Your task to perform on an android device: Go to Yahoo.com Image 0: 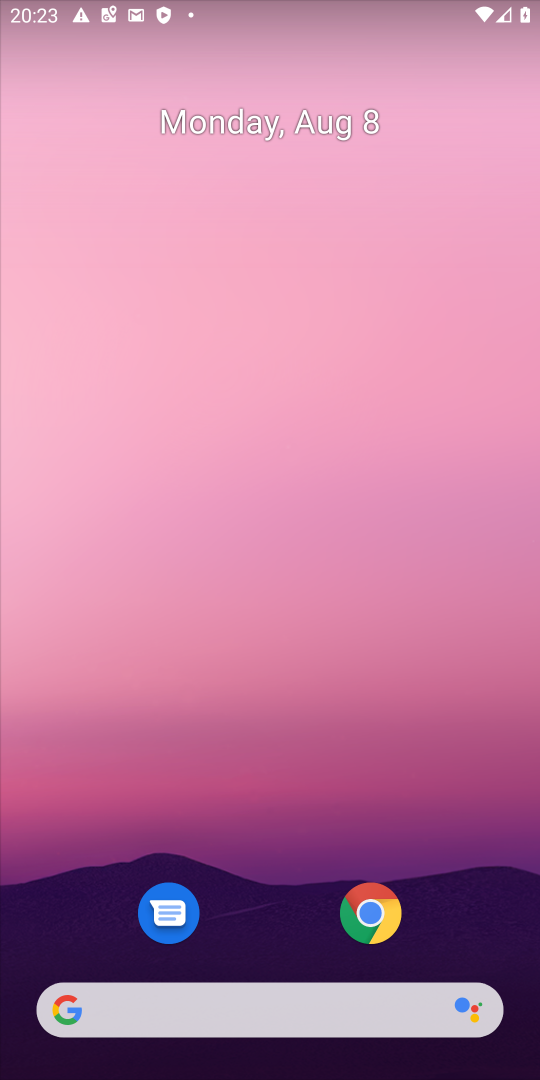
Step 0: press home button
Your task to perform on an android device: Go to Yahoo.com Image 1: 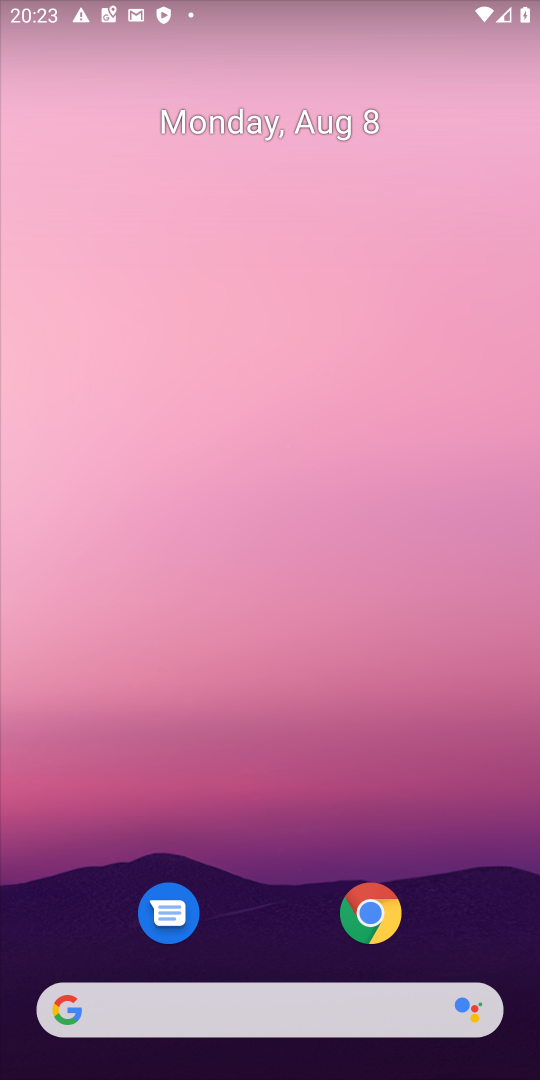
Step 1: click (320, 275)
Your task to perform on an android device: Go to Yahoo.com Image 2: 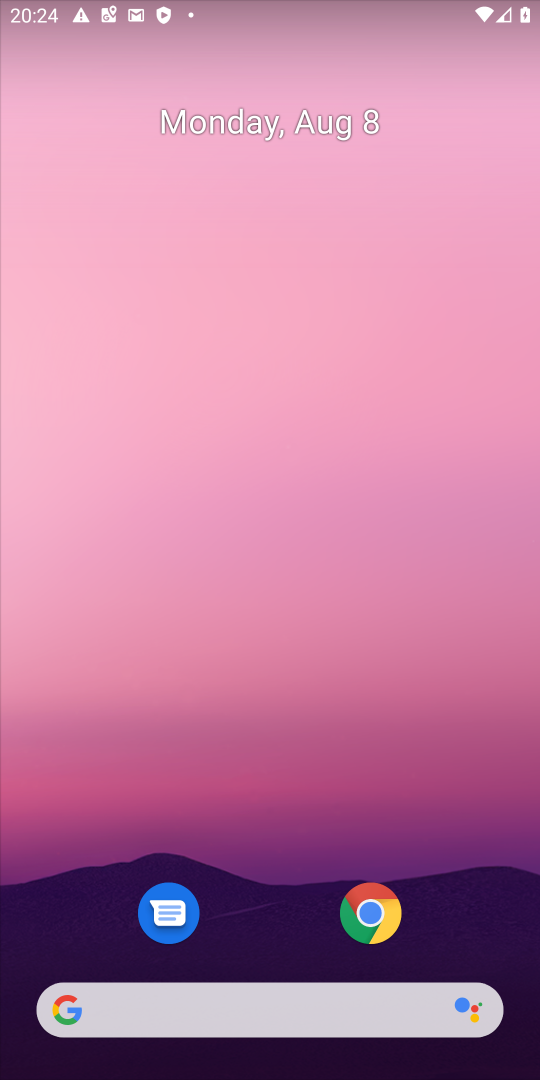
Step 2: press home button
Your task to perform on an android device: Go to Yahoo.com Image 3: 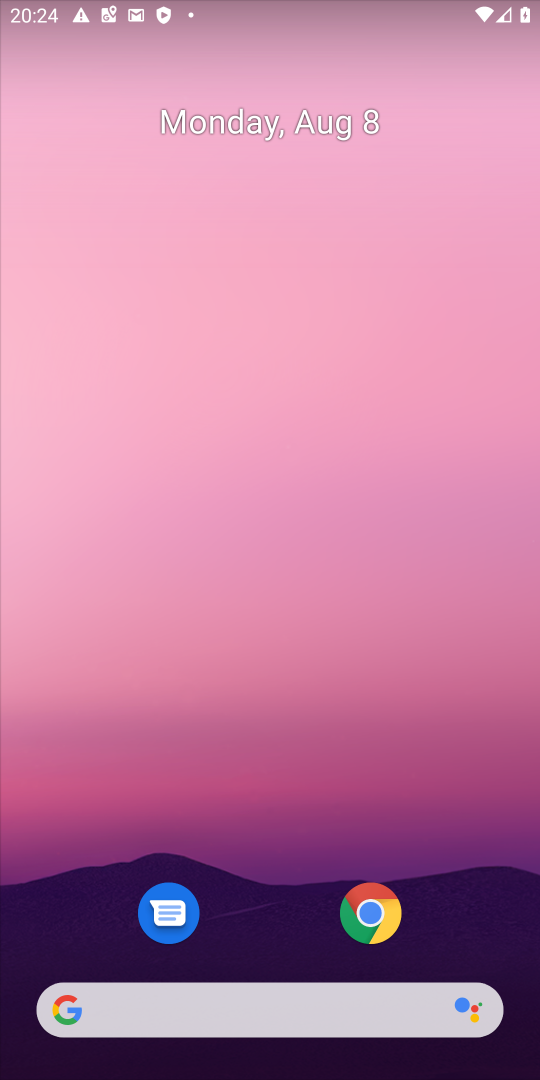
Step 3: drag from (238, 911) to (221, 4)
Your task to perform on an android device: Go to Yahoo.com Image 4: 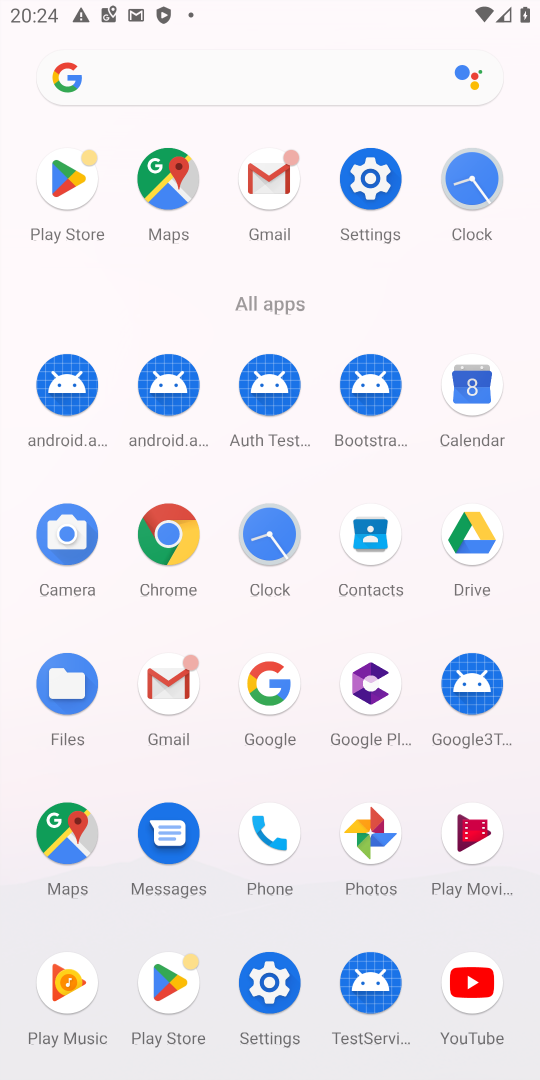
Step 4: click (169, 538)
Your task to perform on an android device: Go to Yahoo.com Image 5: 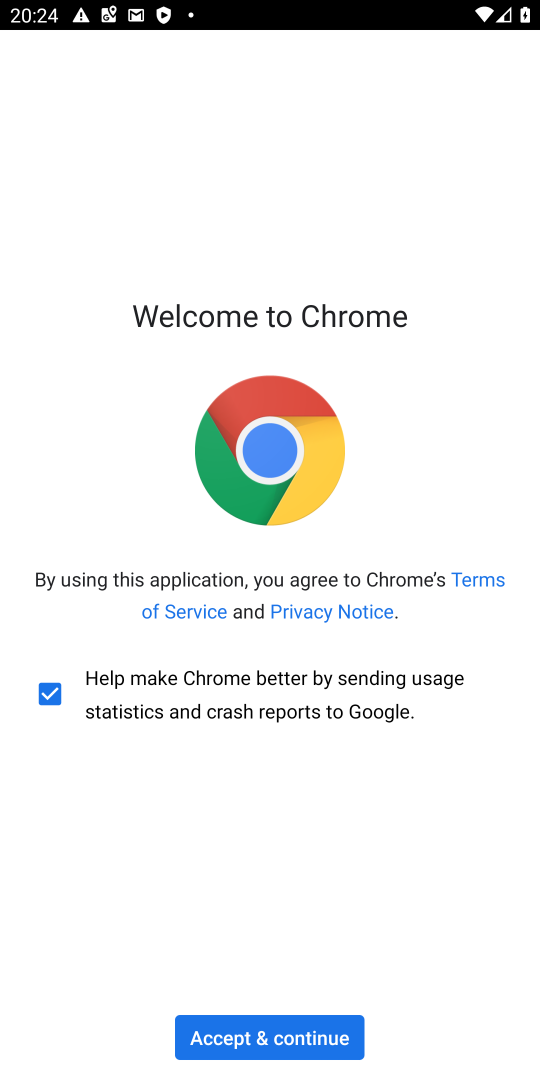
Step 5: click (256, 1026)
Your task to perform on an android device: Go to Yahoo.com Image 6: 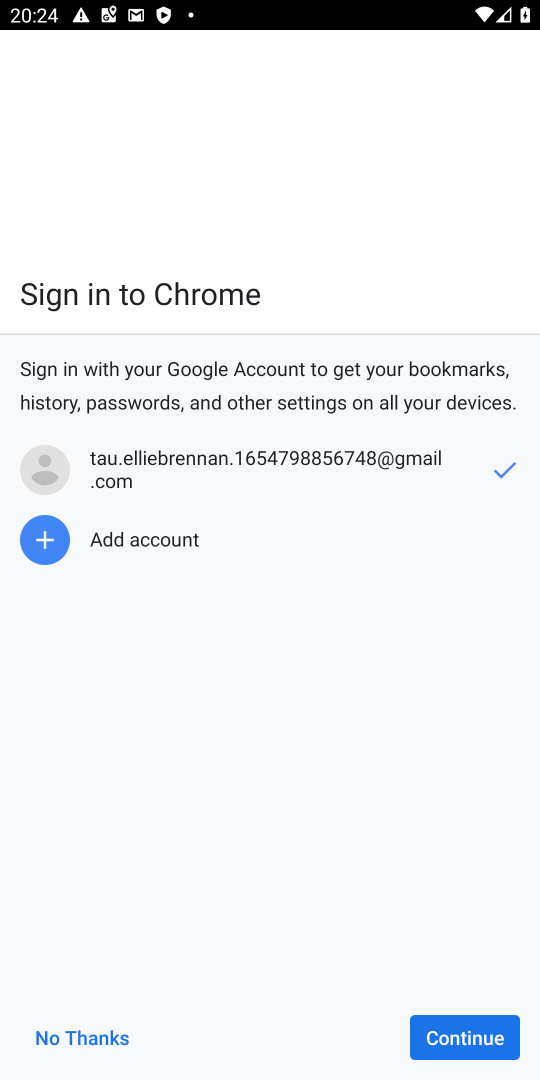
Step 6: click (442, 1053)
Your task to perform on an android device: Go to Yahoo.com Image 7: 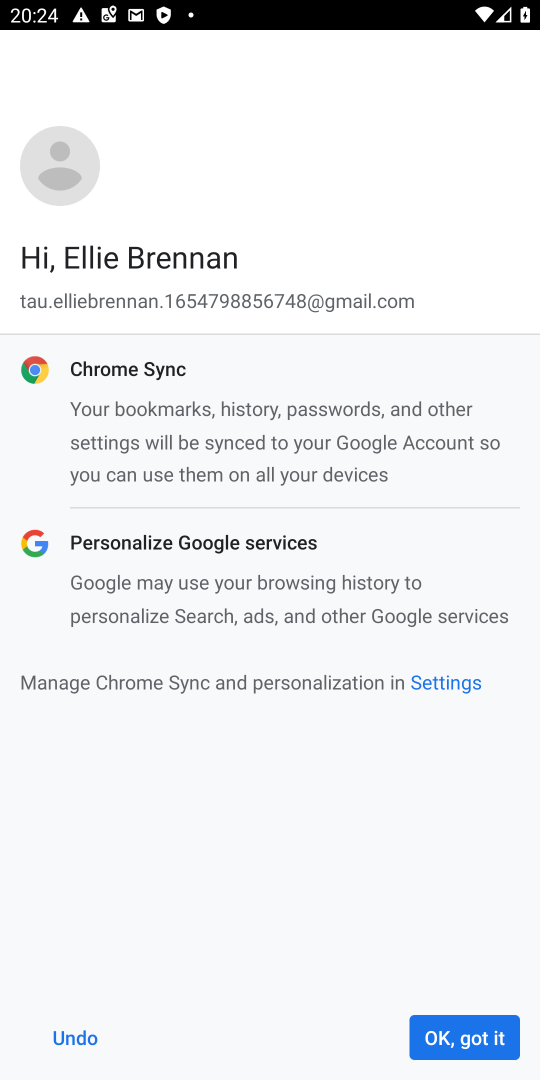
Step 7: click (442, 1053)
Your task to perform on an android device: Go to Yahoo.com Image 8: 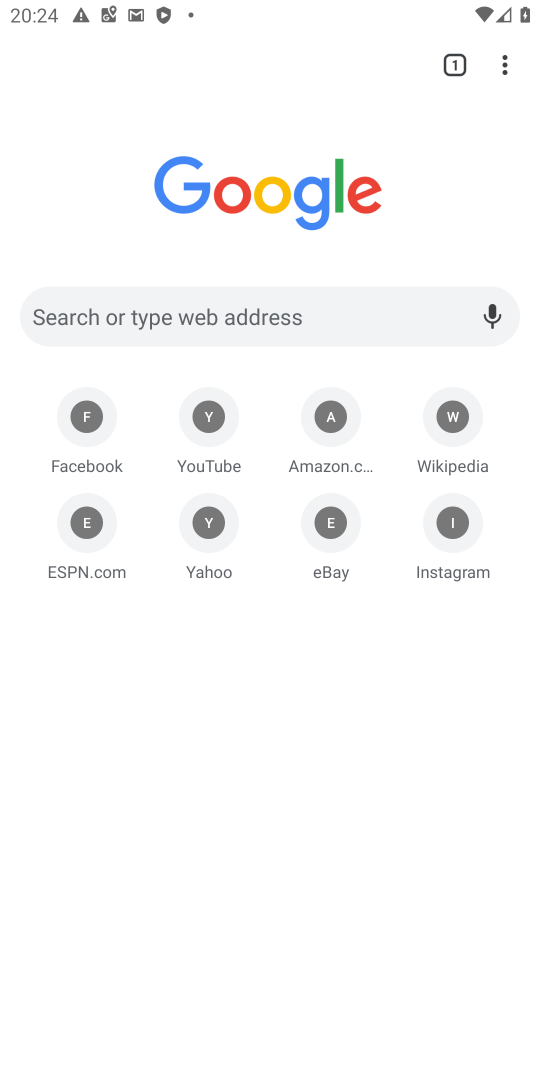
Step 8: click (237, 317)
Your task to perform on an android device: Go to Yahoo.com Image 9: 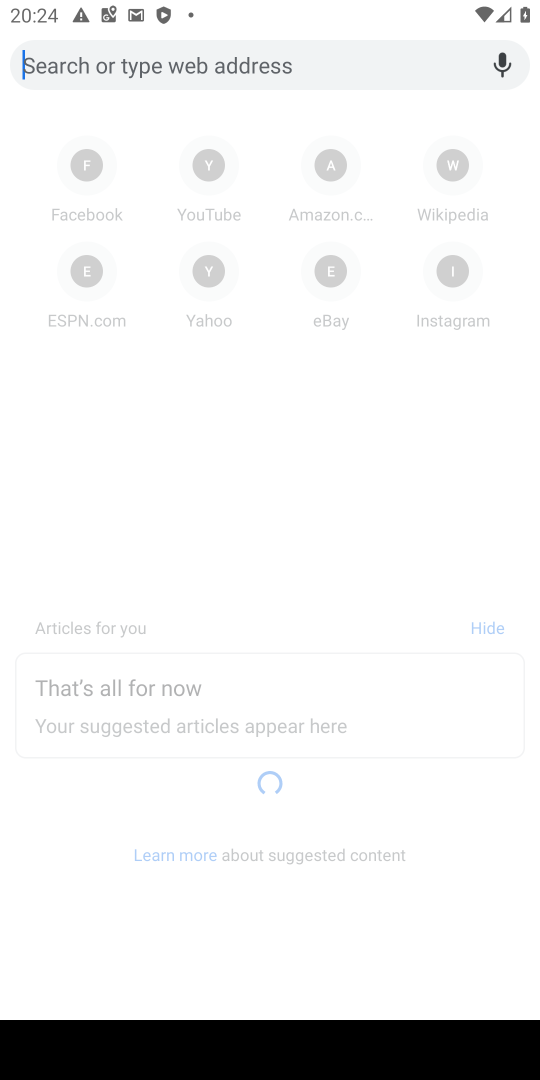
Step 9: type "Italian restaurants"
Your task to perform on an android device: Go to Yahoo.com Image 10: 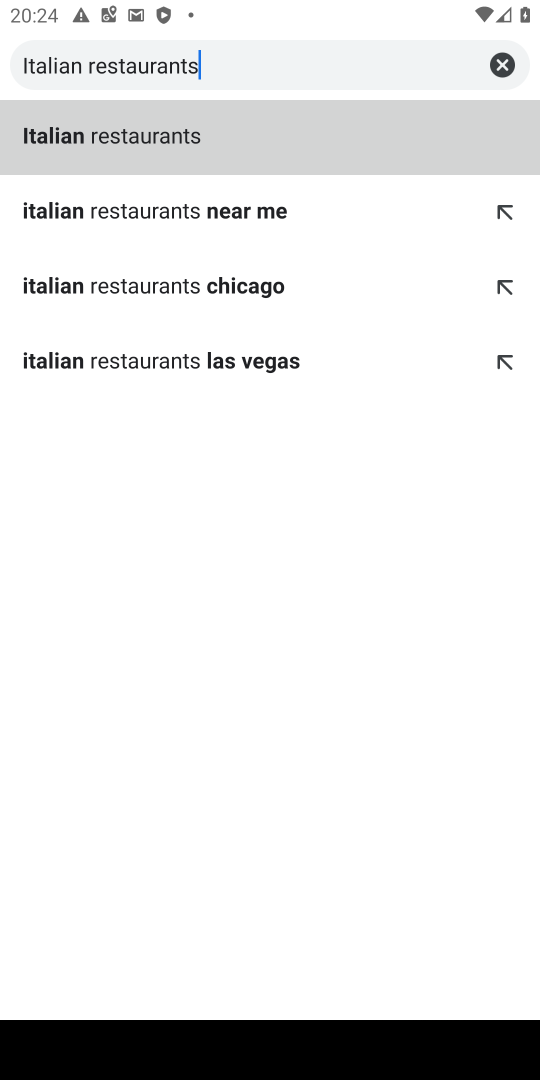
Step 10: press home button
Your task to perform on an android device: Go to Yahoo.com Image 11: 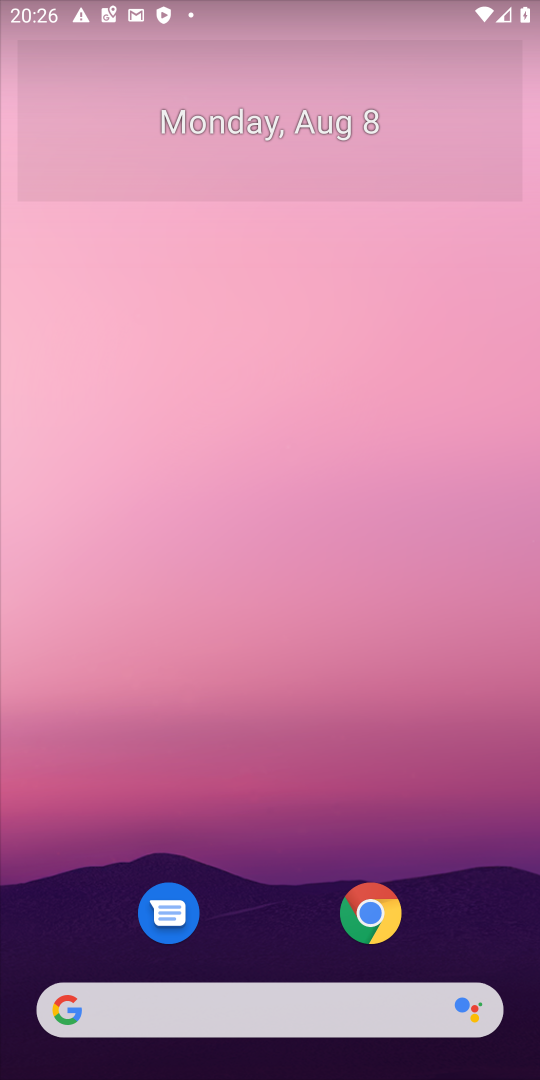
Step 11: click (359, 890)
Your task to perform on an android device: Go to Yahoo.com Image 12: 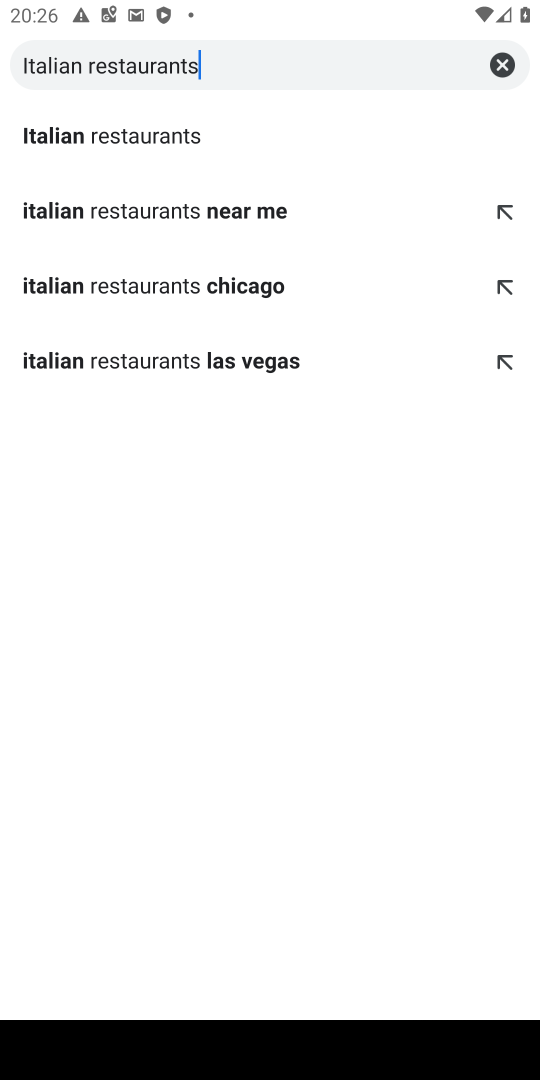
Step 12: click (512, 68)
Your task to perform on an android device: Go to Yahoo.com Image 13: 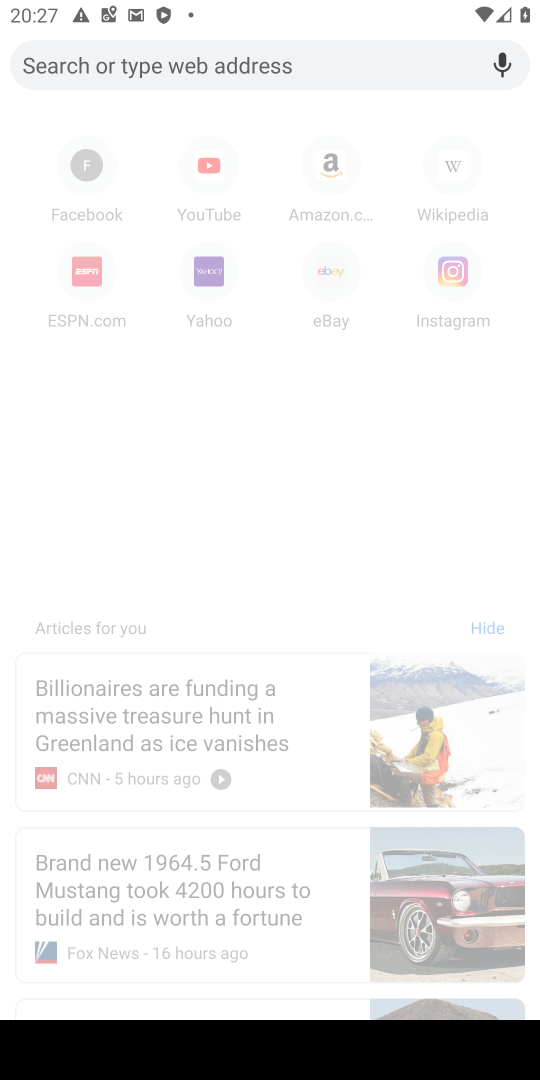
Step 13: type "Yahoo.com"
Your task to perform on an android device: Go to Yahoo.com Image 14: 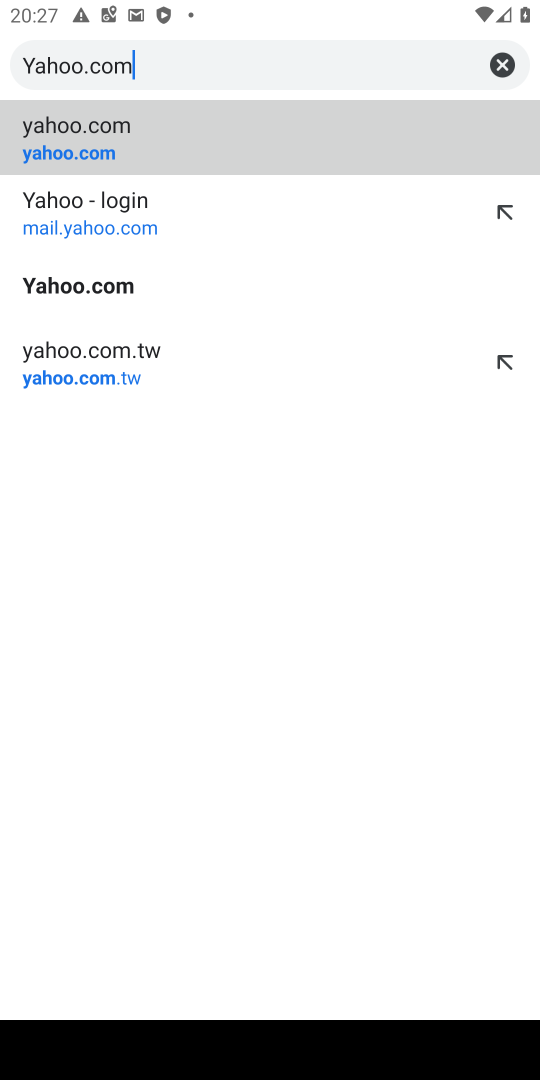
Step 14: type ""
Your task to perform on an android device: Go to Yahoo.com Image 15: 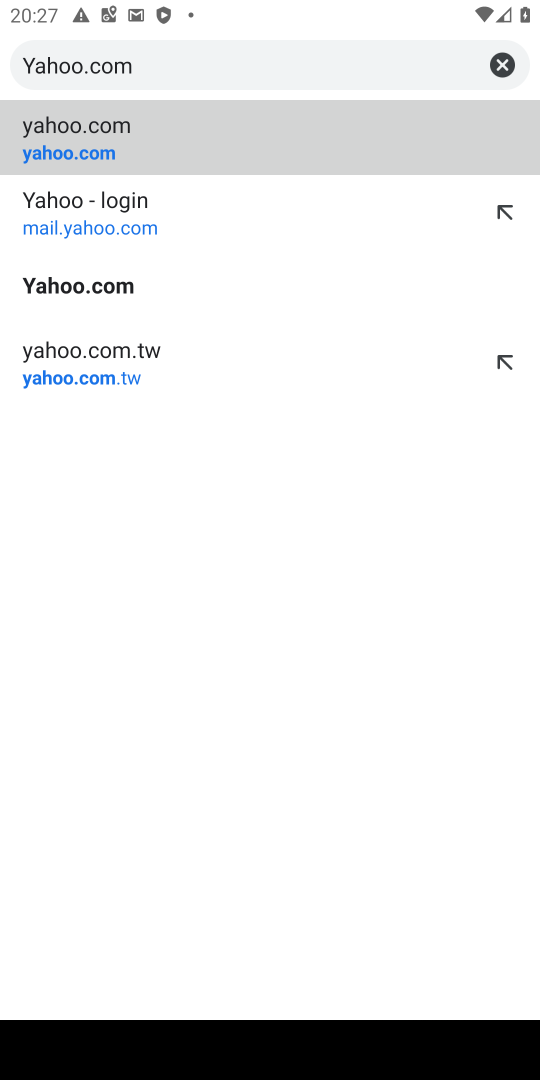
Step 15: click (172, 123)
Your task to perform on an android device: Go to Yahoo.com Image 16: 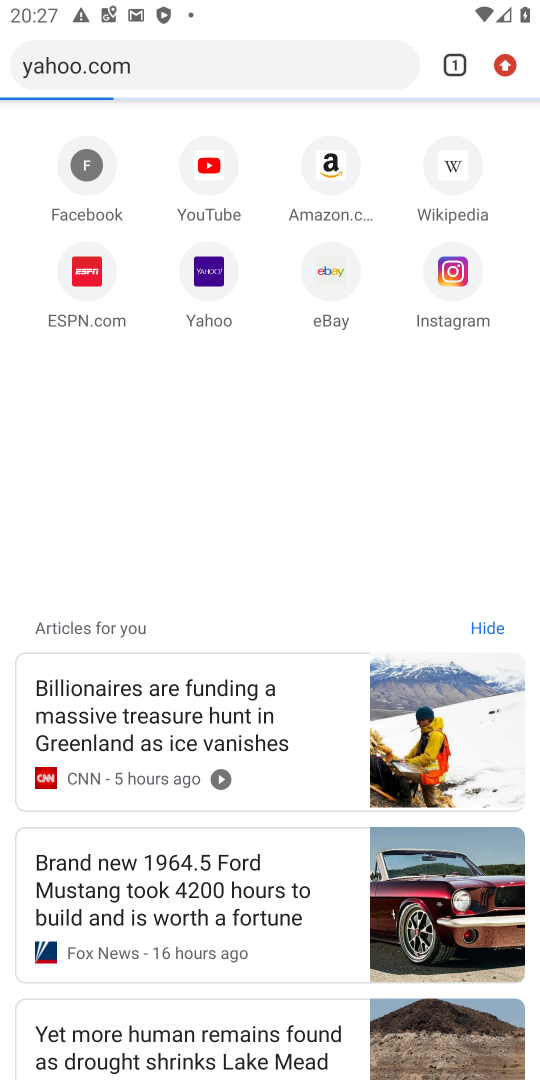
Step 16: task complete